Your task to perform on an android device: Open internet settings Image 0: 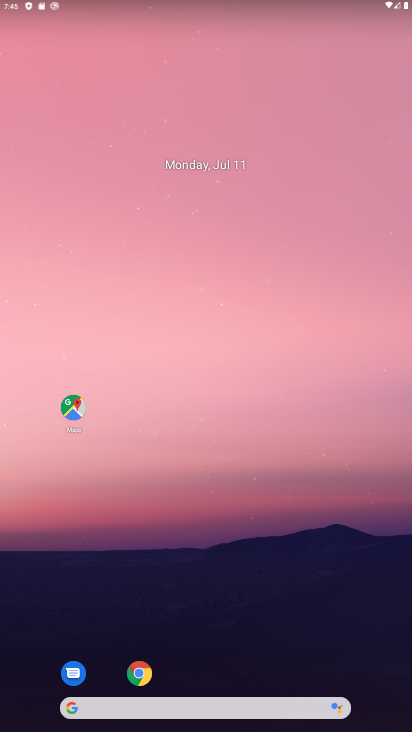
Step 0: drag from (257, 575) to (228, 154)
Your task to perform on an android device: Open internet settings Image 1: 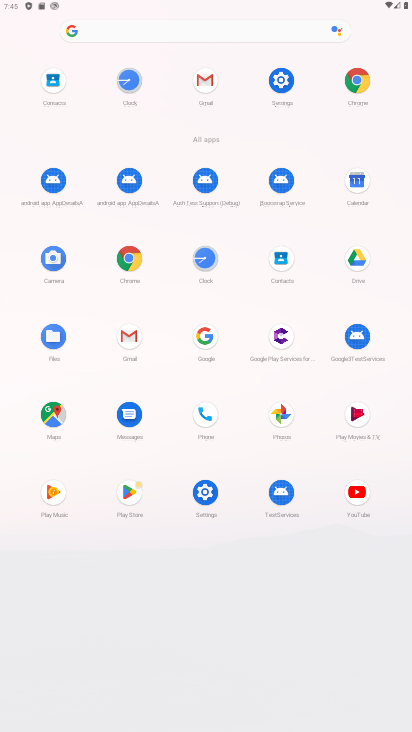
Step 1: click (285, 78)
Your task to perform on an android device: Open internet settings Image 2: 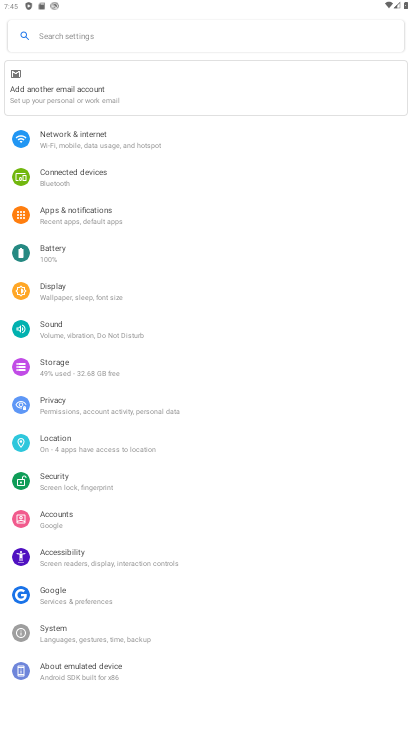
Step 2: click (120, 136)
Your task to perform on an android device: Open internet settings Image 3: 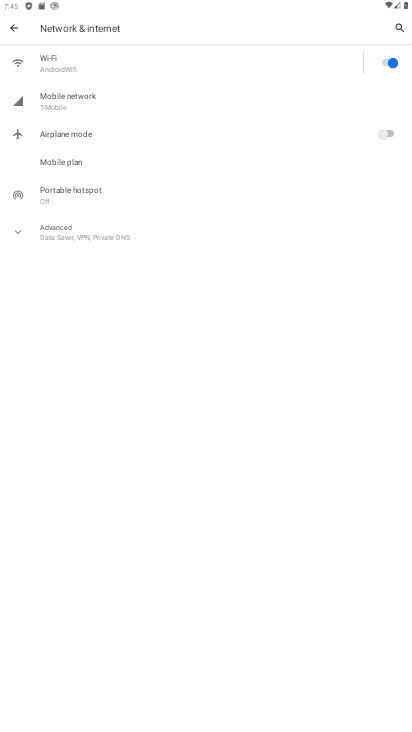
Step 3: click (100, 241)
Your task to perform on an android device: Open internet settings Image 4: 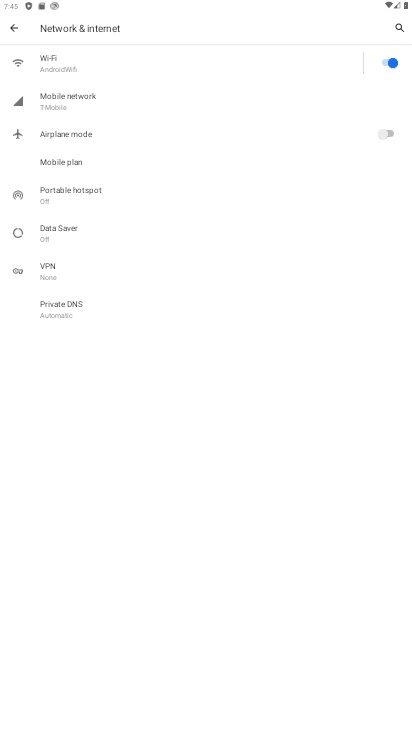
Step 4: task complete